Your task to perform on an android device: change timer sound Image 0: 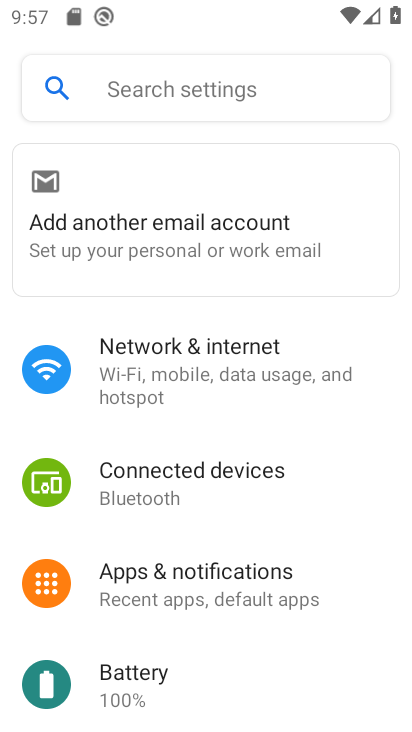
Step 0: press home button
Your task to perform on an android device: change timer sound Image 1: 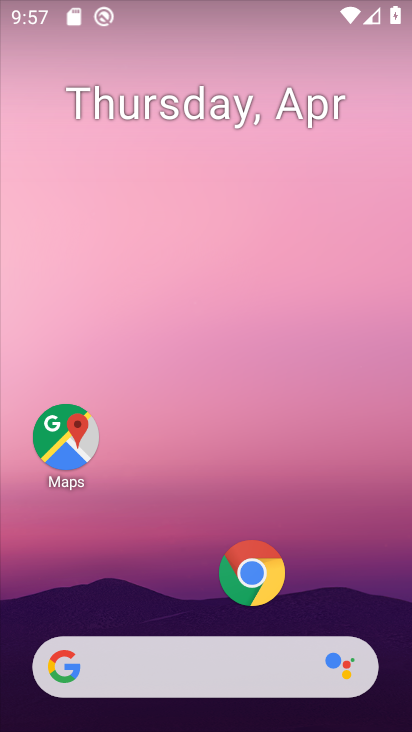
Step 1: drag from (200, 611) to (200, 124)
Your task to perform on an android device: change timer sound Image 2: 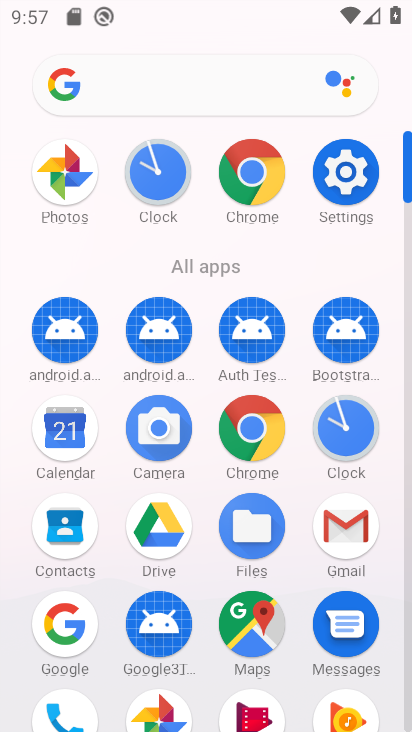
Step 2: click (357, 430)
Your task to perform on an android device: change timer sound Image 3: 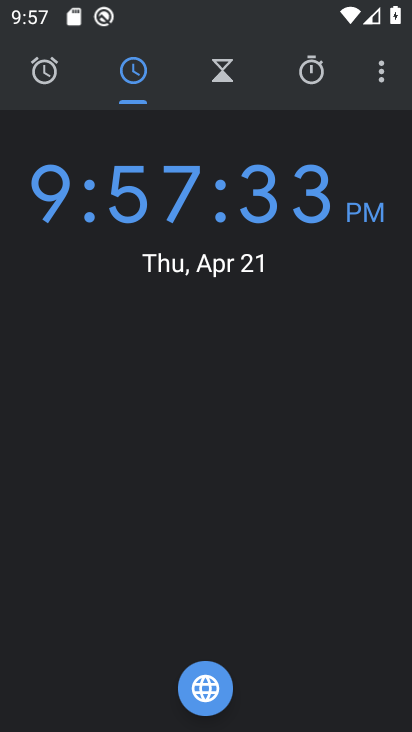
Step 3: click (383, 78)
Your task to perform on an android device: change timer sound Image 4: 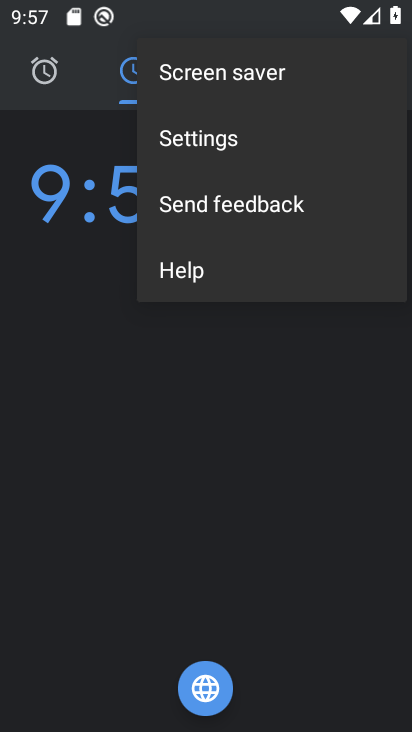
Step 4: click (303, 133)
Your task to perform on an android device: change timer sound Image 5: 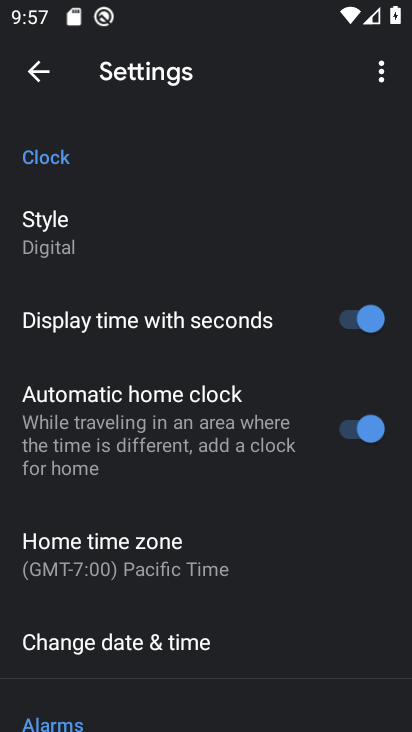
Step 5: drag from (246, 654) to (261, 147)
Your task to perform on an android device: change timer sound Image 6: 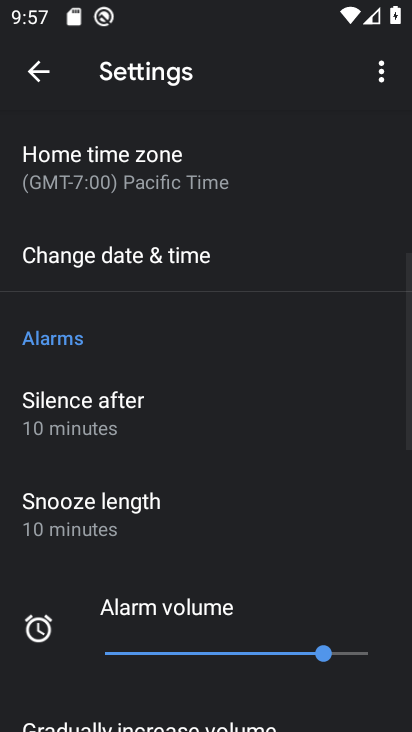
Step 6: drag from (235, 556) to (251, 236)
Your task to perform on an android device: change timer sound Image 7: 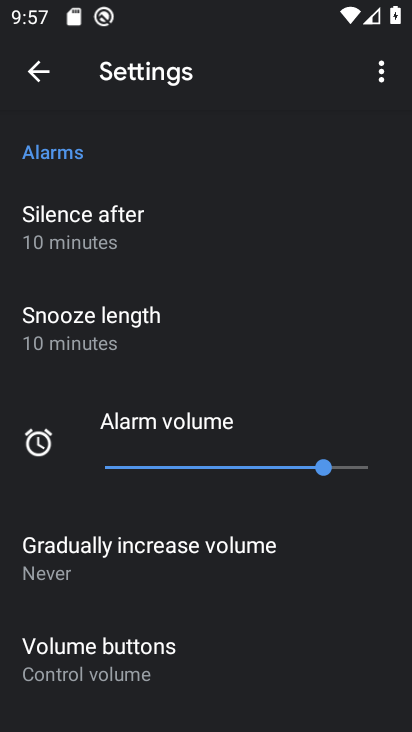
Step 7: drag from (243, 626) to (280, 233)
Your task to perform on an android device: change timer sound Image 8: 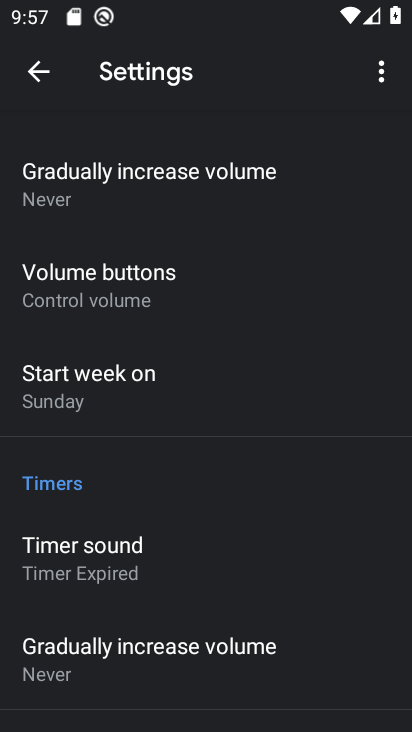
Step 8: click (132, 534)
Your task to perform on an android device: change timer sound Image 9: 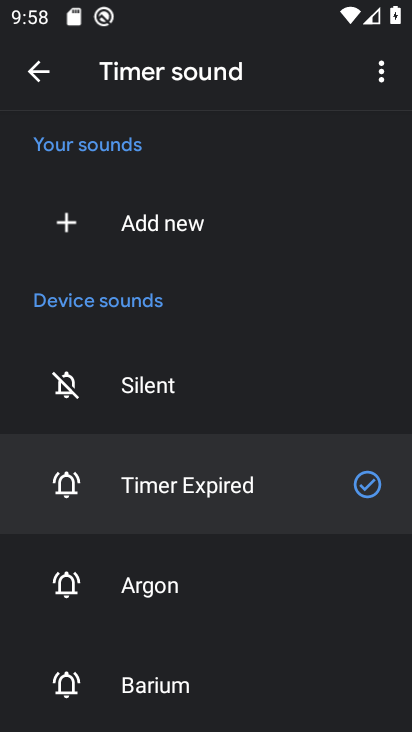
Step 9: click (143, 594)
Your task to perform on an android device: change timer sound Image 10: 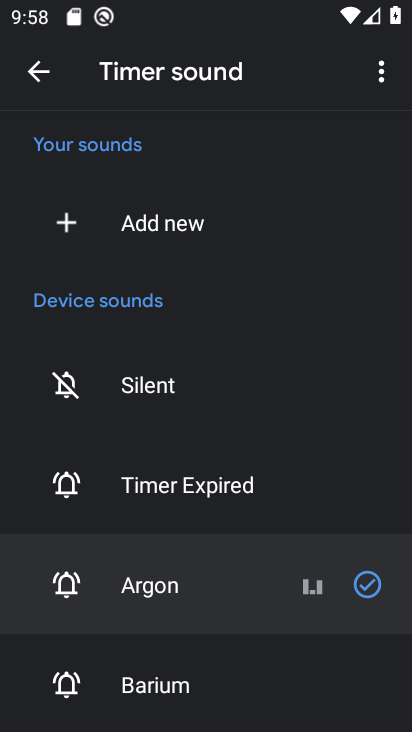
Step 10: task complete